Your task to perform on an android device: turn off translation in the chrome app Image 0: 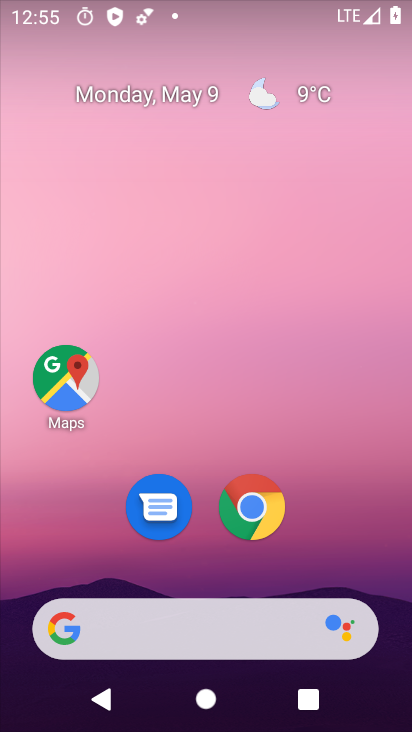
Step 0: click (255, 507)
Your task to perform on an android device: turn off translation in the chrome app Image 1: 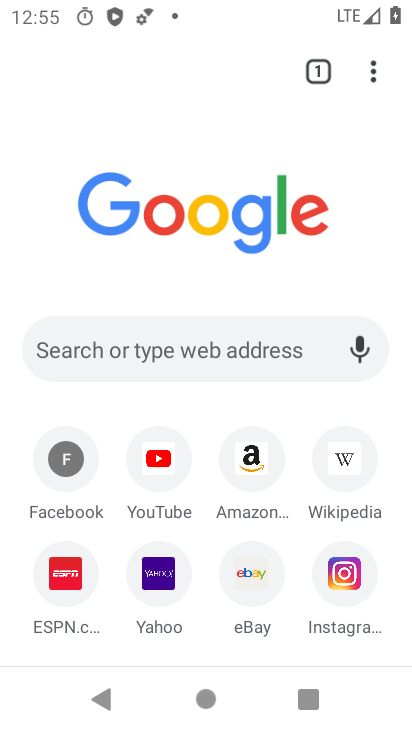
Step 1: click (374, 80)
Your task to perform on an android device: turn off translation in the chrome app Image 2: 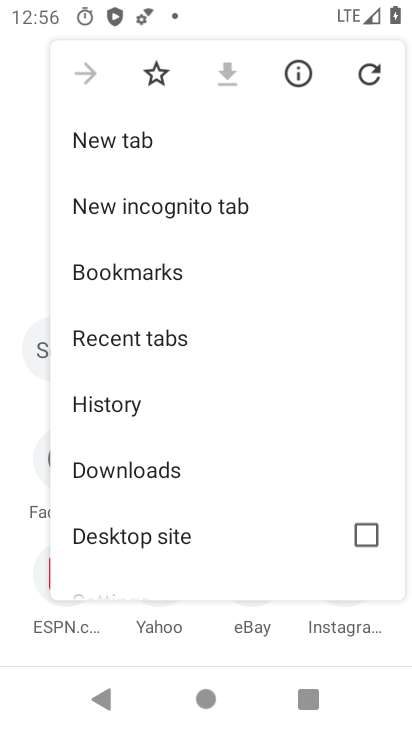
Step 2: drag from (166, 563) to (166, 176)
Your task to perform on an android device: turn off translation in the chrome app Image 3: 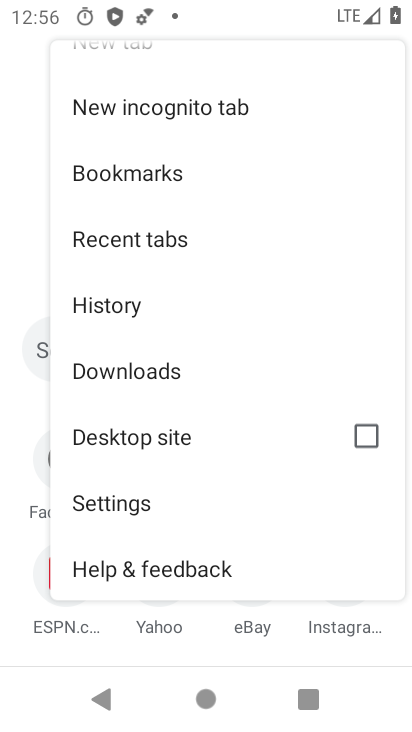
Step 3: click (96, 498)
Your task to perform on an android device: turn off translation in the chrome app Image 4: 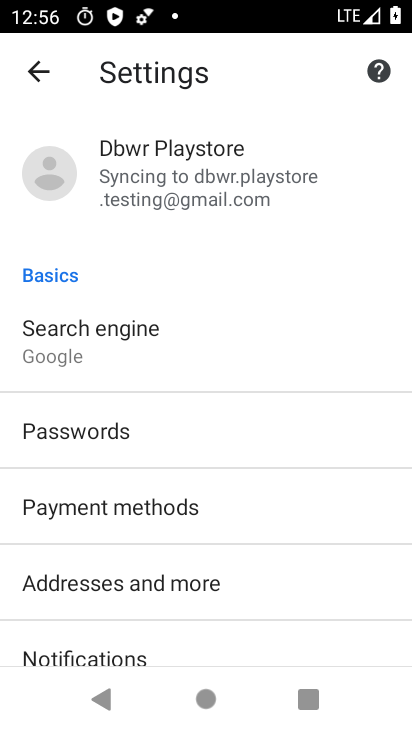
Step 4: drag from (141, 606) to (141, 287)
Your task to perform on an android device: turn off translation in the chrome app Image 5: 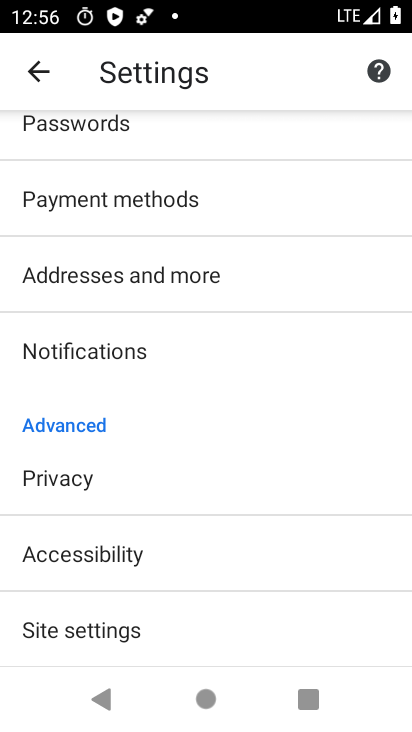
Step 5: drag from (106, 621) to (106, 327)
Your task to perform on an android device: turn off translation in the chrome app Image 6: 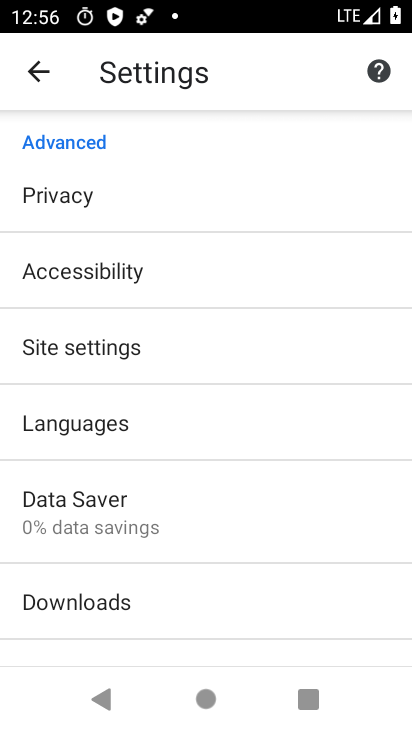
Step 6: click (96, 421)
Your task to perform on an android device: turn off translation in the chrome app Image 7: 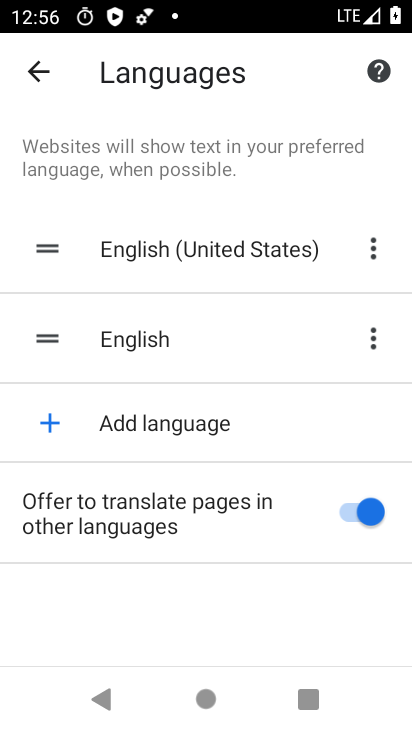
Step 7: click (348, 512)
Your task to perform on an android device: turn off translation in the chrome app Image 8: 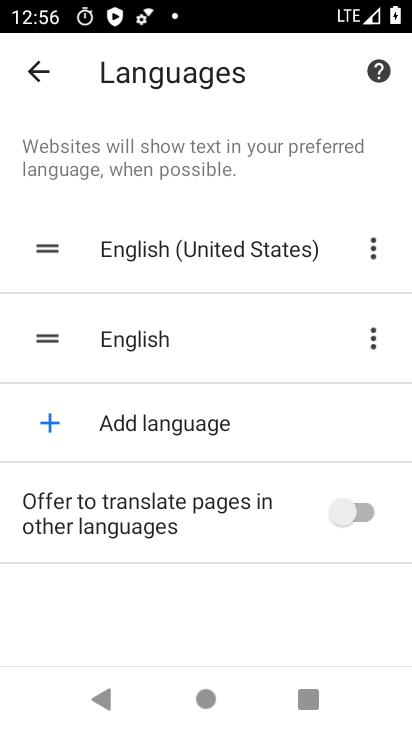
Step 8: task complete